Your task to perform on an android device: add a contact Image 0: 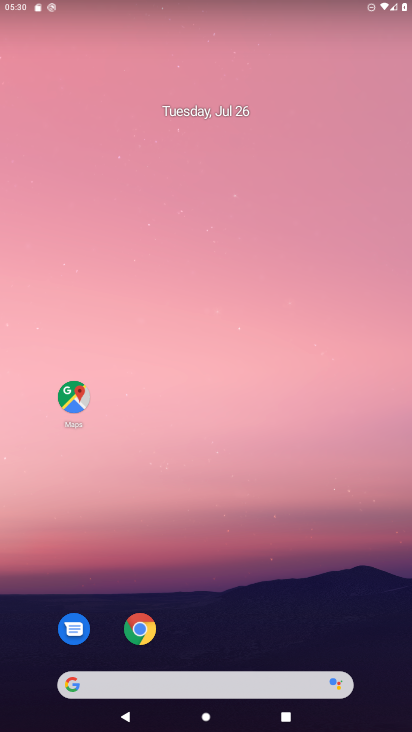
Step 0: drag from (206, 635) to (195, 156)
Your task to perform on an android device: add a contact Image 1: 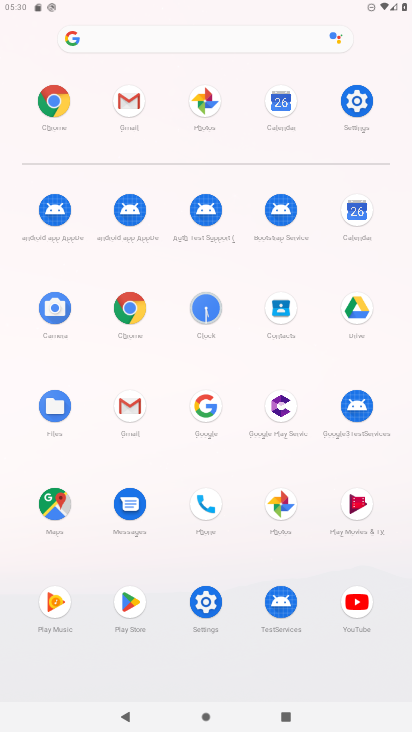
Step 1: click (280, 329)
Your task to perform on an android device: add a contact Image 2: 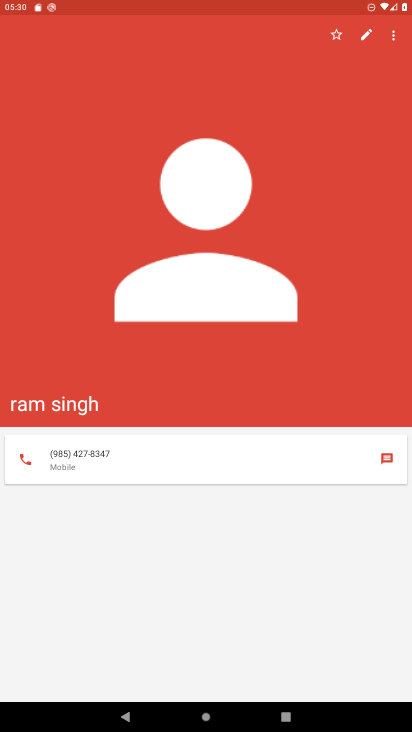
Step 2: press back button
Your task to perform on an android device: add a contact Image 3: 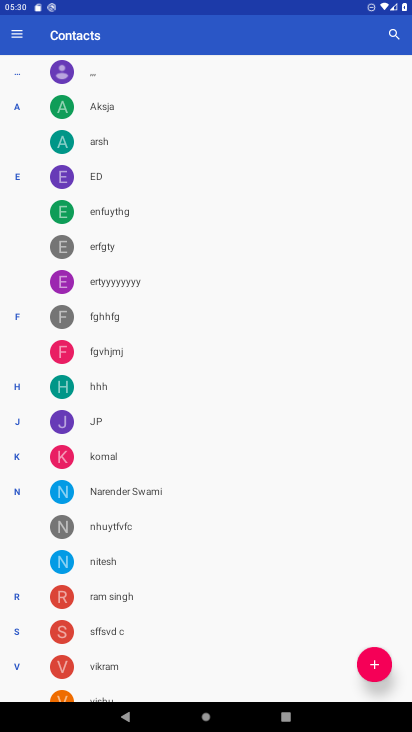
Step 3: click (378, 670)
Your task to perform on an android device: add a contact Image 4: 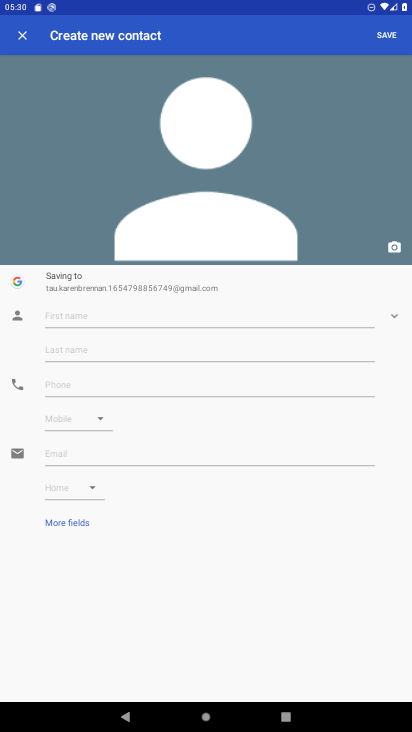
Step 4: click (74, 315)
Your task to perform on an android device: add a contact Image 5: 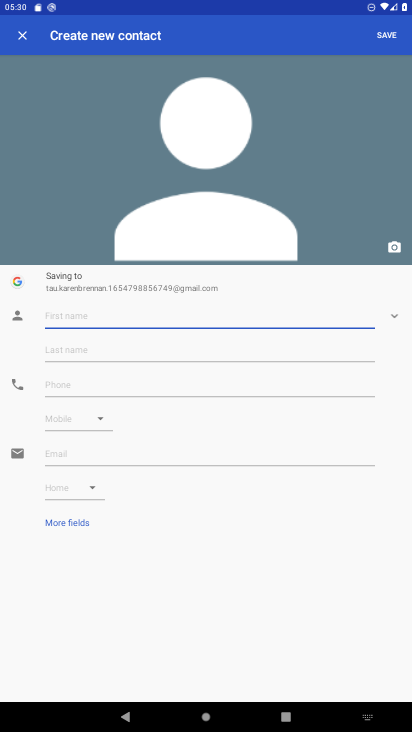
Step 5: type "lokesh"
Your task to perform on an android device: add a contact Image 6: 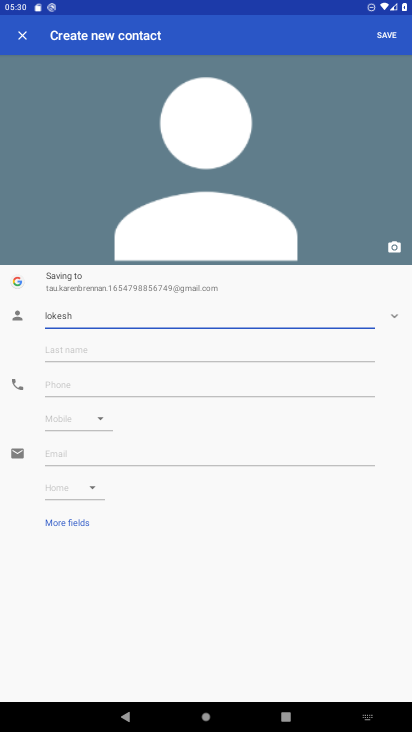
Step 6: click (118, 347)
Your task to perform on an android device: add a contact Image 7: 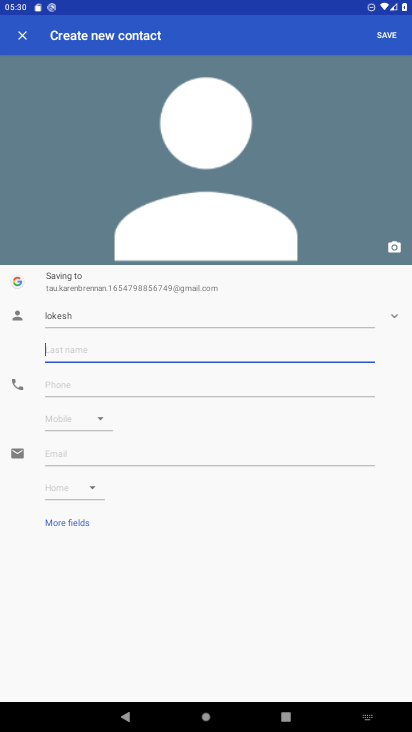
Step 7: click (237, 384)
Your task to perform on an android device: add a contact Image 8: 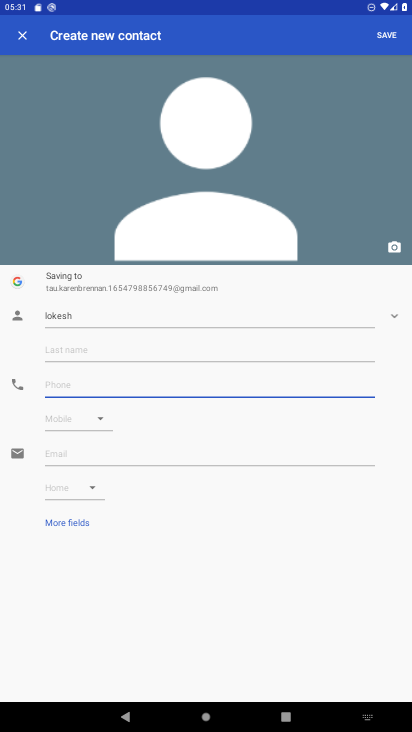
Step 8: type "7890098788"
Your task to perform on an android device: add a contact Image 9: 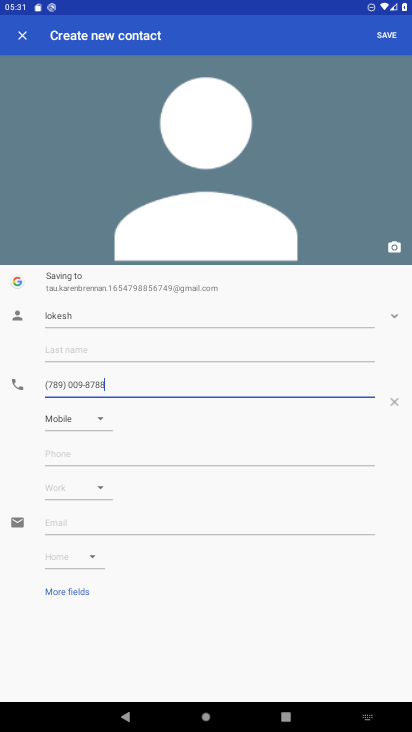
Step 9: click (393, 40)
Your task to perform on an android device: add a contact Image 10: 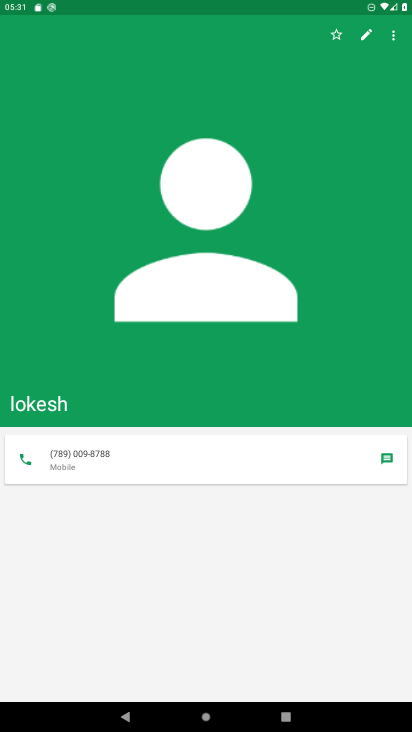
Step 10: task complete